Your task to perform on an android device: remove spam from my inbox in the gmail app Image 0: 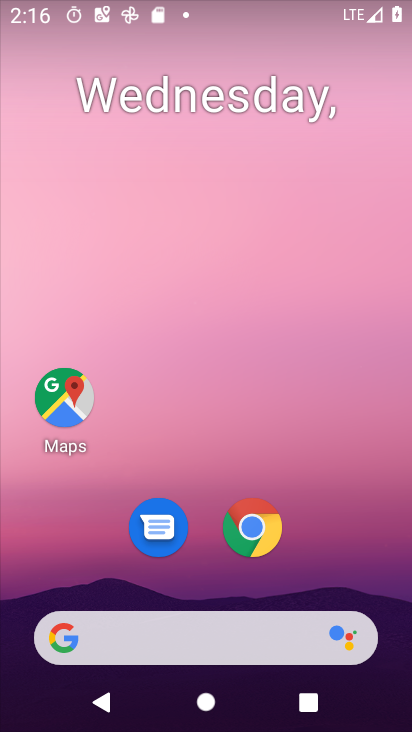
Step 0: drag from (241, 544) to (284, 58)
Your task to perform on an android device: remove spam from my inbox in the gmail app Image 1: 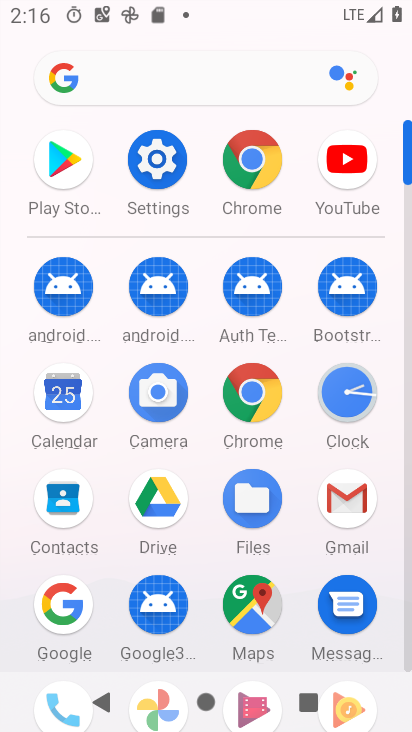
Step 1: click (338, 511)
Your task to perform on an android device: remove spam from my inbox in the gmail app Image 2: 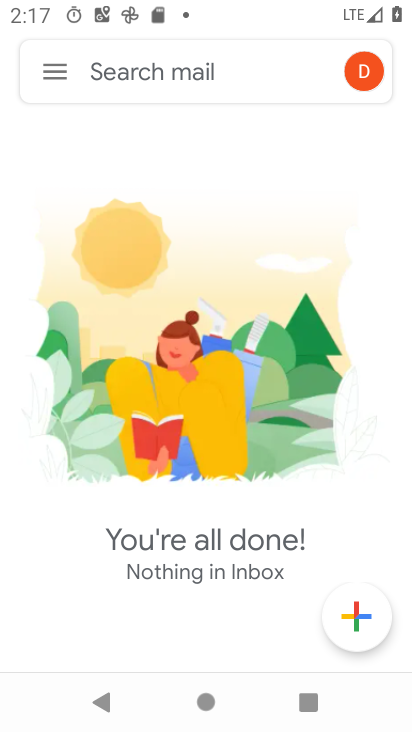
Step 2: click (65, 63)
Your task to perform on an android device: remove spam from my inbox in the gmail app Image 3: 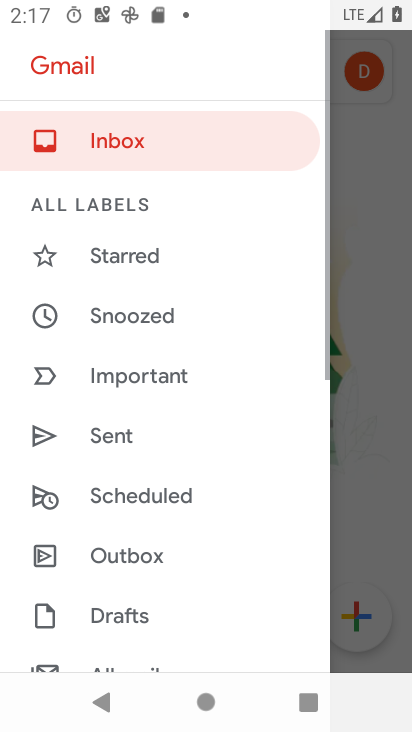
Step 3: drag from (159, 618) to (248, 81)
Your task to perform on an android device: remove spam from my inbox in the gmail app Image 4: 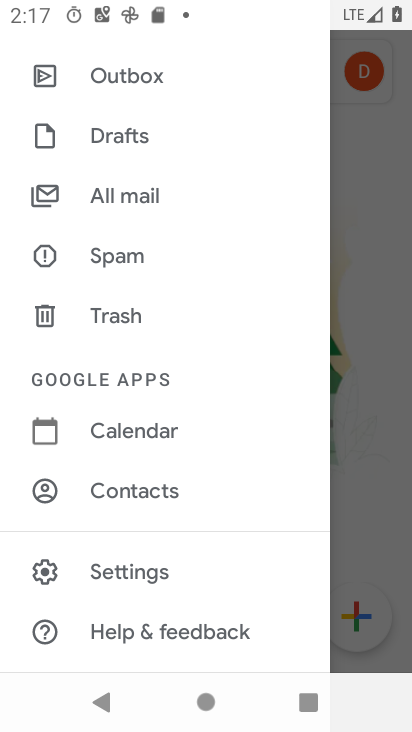
Step 4: click (154, 255)
Your task to perform on an android device: remove spam from my inbox in the gmail app Image 5: 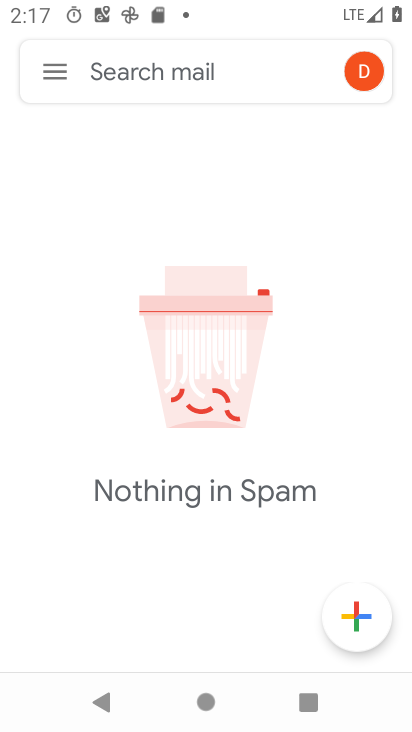
Step 5: task complete